Your task to perform on an android device: Find coffee shops on Maps Image 0: 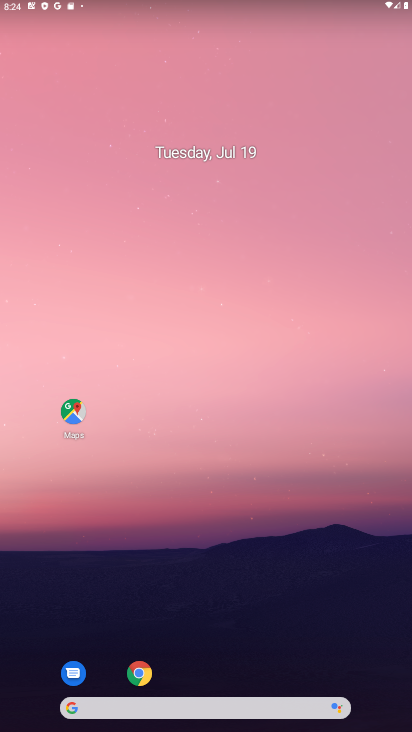
Step 0: drag from (212, 665) to (159, 179)
Your task to perform on an android device: Find coffee shops on Maps Image 1: 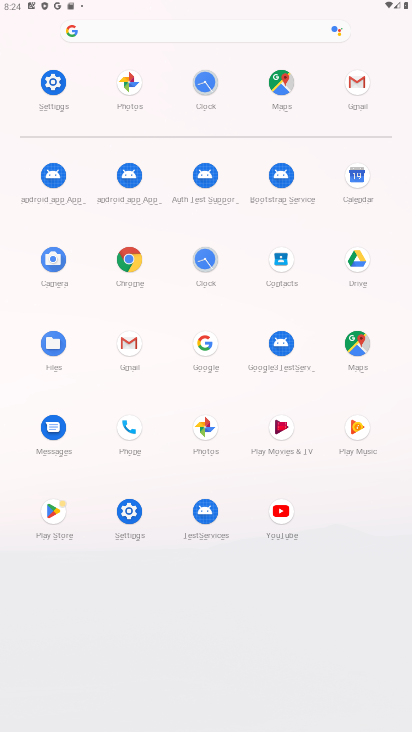
Step 1: click (348, 364)
Your task to perform on an android device: Find coffee shops on Maps Image 2: 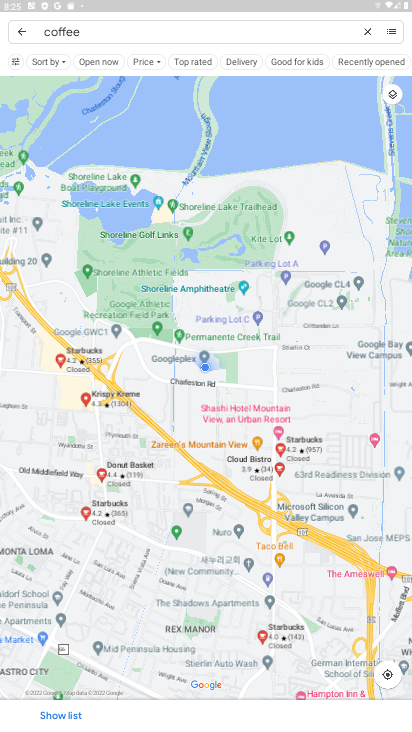
Step 2: click (205, 33)
Your task to perform on an android device: Find coffee shops on Maps Image 3: 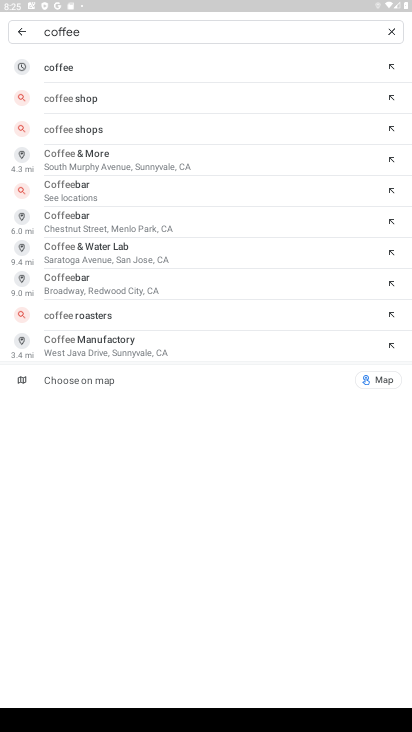
Step 3: click (124, 66)
Your task to perform on an android device: Find coffee shops on Maps Image 4: 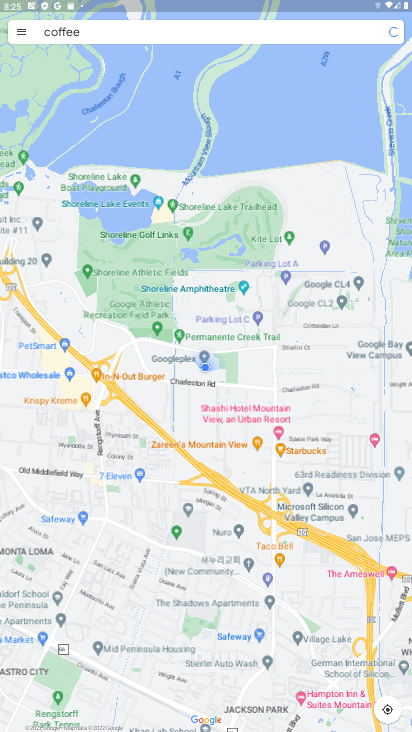
Step 4: task complete